Your task to perform on an android device: check storage Image 0: 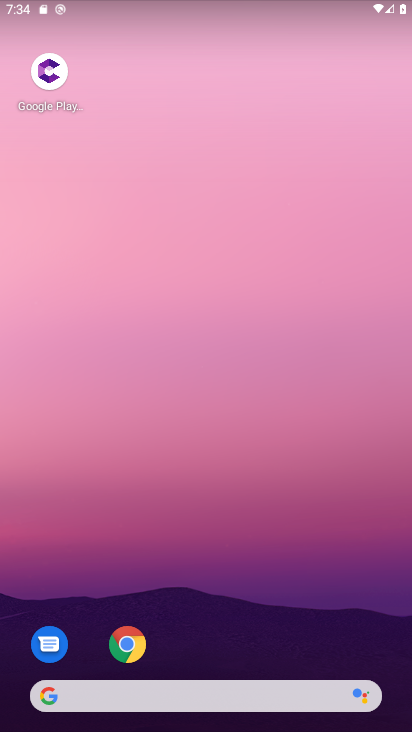
Step 0: drag from (268, 650) to (230, 5)
Your task to perform on an android device: check storage Image 1: 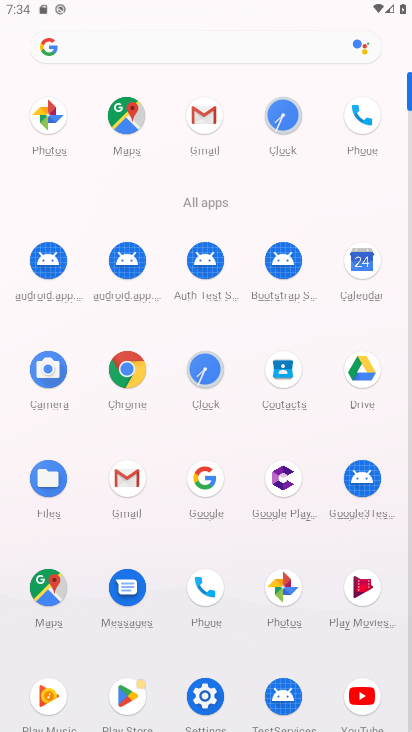
Step 1: click (203, 707)
Your task to perform on an android device: check storage Image 2: 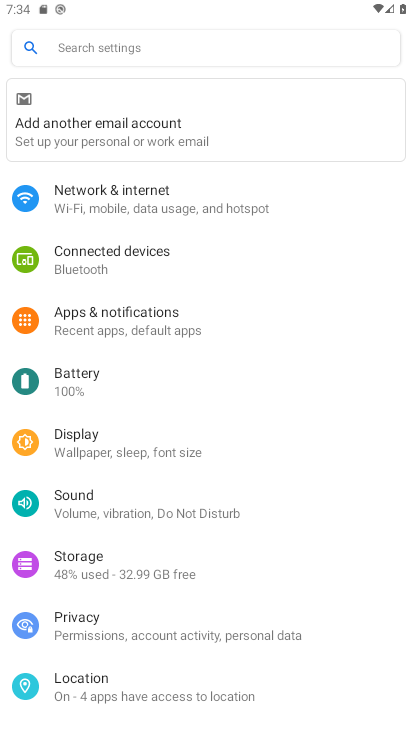
Step 2: click (113, 563)
Your task to perform on an android device: check storage Image 3: 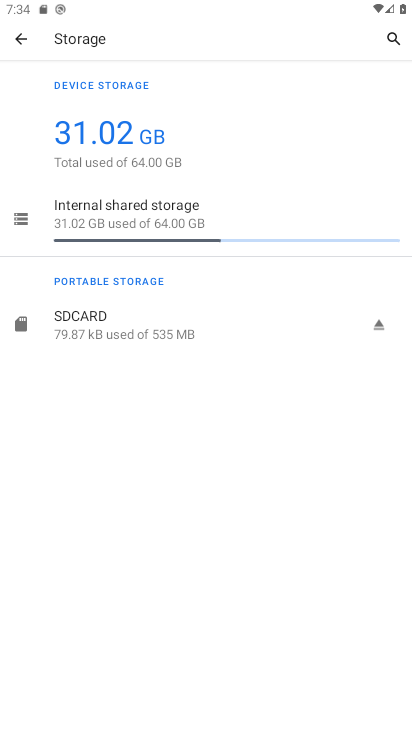
Step 3: task complete